Your task to perform on an android device: Go to accessibility settings Image 0: 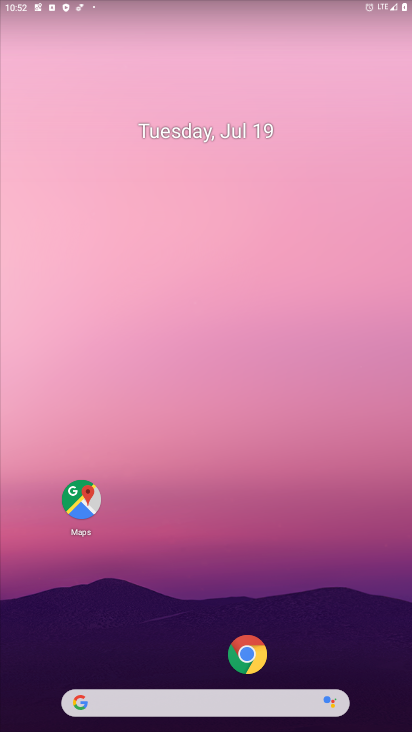
Step 0: drag from (150, 680) to (146, 260)
Your task to perform on an android device: Go to accessibility settings Image 1: 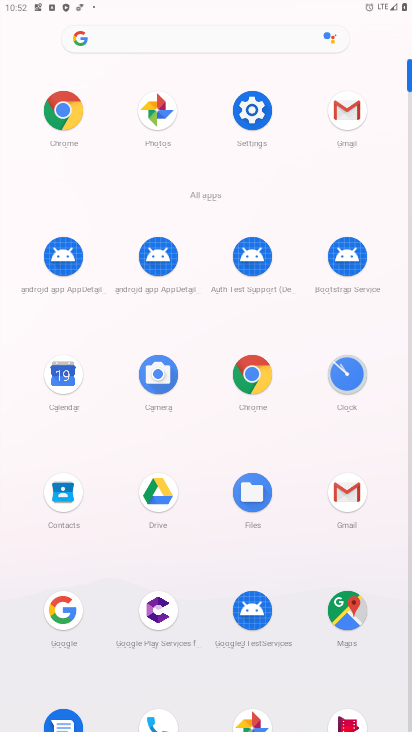
Step 1: click (242, 122)
Your task to perform on an android device: Go to accessibility settings Image 2: 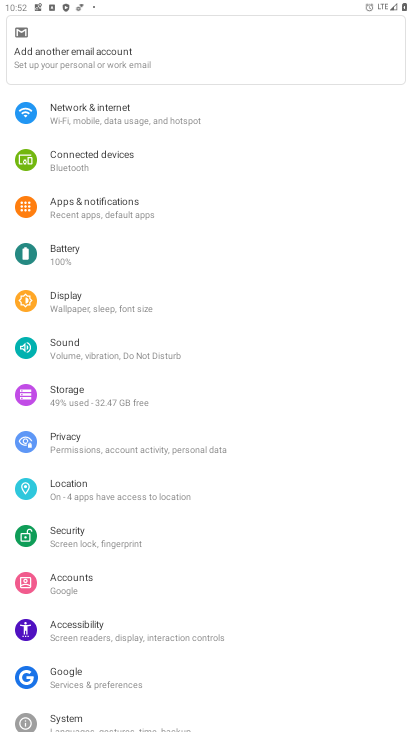
Step 2: click (61, 622)
Your task to perform on an android device: Go to accessibility settings Image 3: 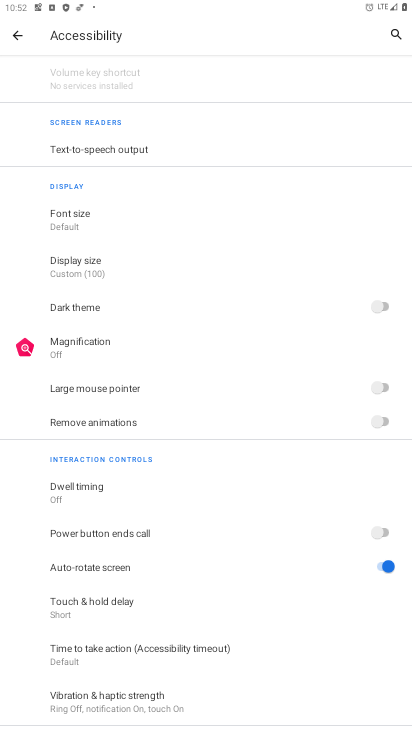
Step 3: task complete